Your task to perform on an android device: Open calendar and show me the third week of next month Image 0: 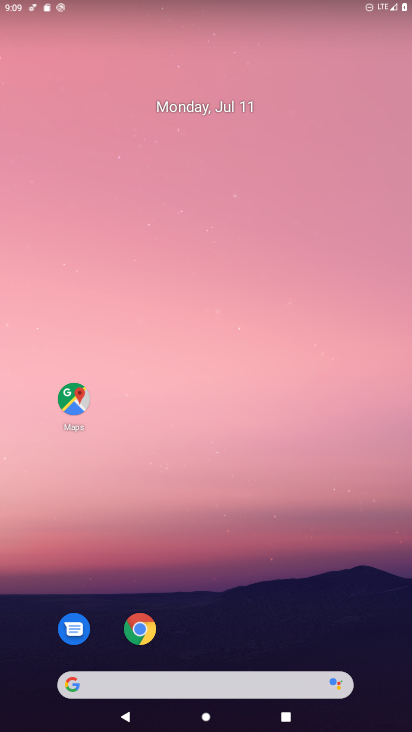
Step 0: click (200, 110)
Your task to perform on an android device: Open calendar and show me the third week of next month Image 1: 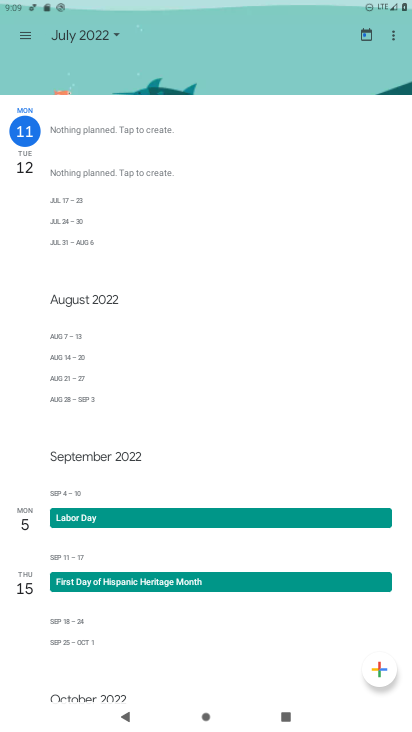
Step 1: click (85, 23)
Your task to perform on an android device: Open calendar and show me the third week of next month Image 2: 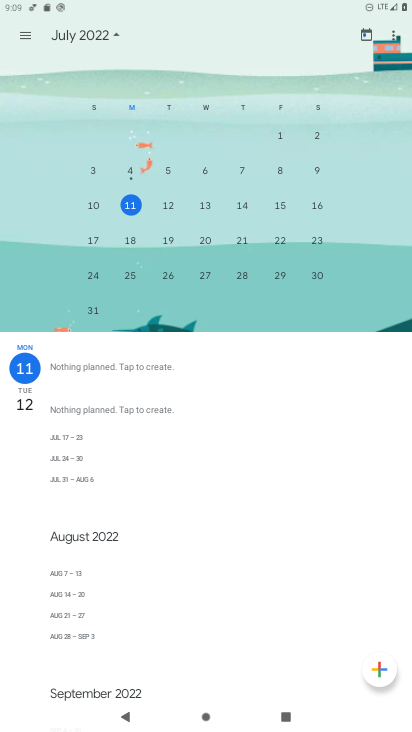
Step 2: drag from (361, 234) to (56, 268)
Your task to perform on an android device: Open calendar and show me the third week of next month Image 3: 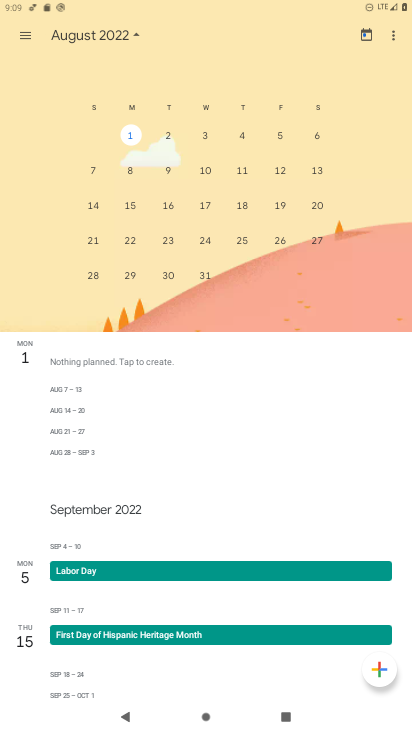
Step 3: click (244, 206)
Your task to perform on an android device: Open calendar and show me the third week of next month Image 4: 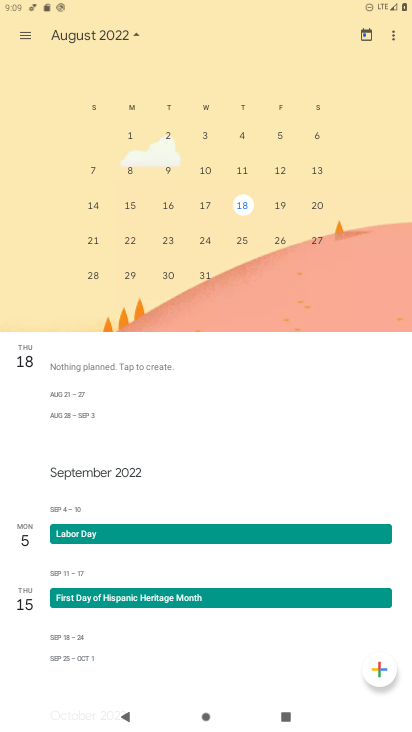
Step 4: task complete